Your task to perform on an android device: Go to internet settings Image 0: 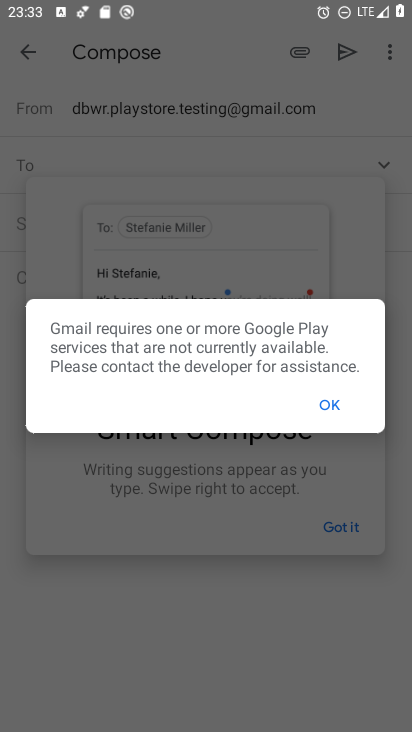
Step 0: press home button
Your task to perform on an android device: Go to internet settings Image 1: 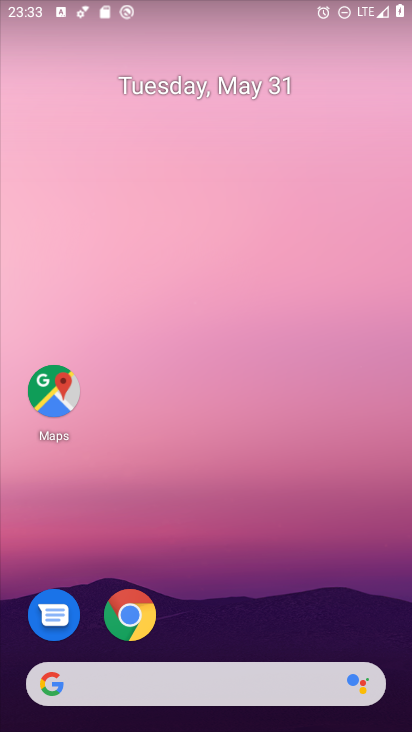
Step 1: drag from (381, 636) to (314, 80)
Your task to perform on an android device: Go to internet settings Image 2: 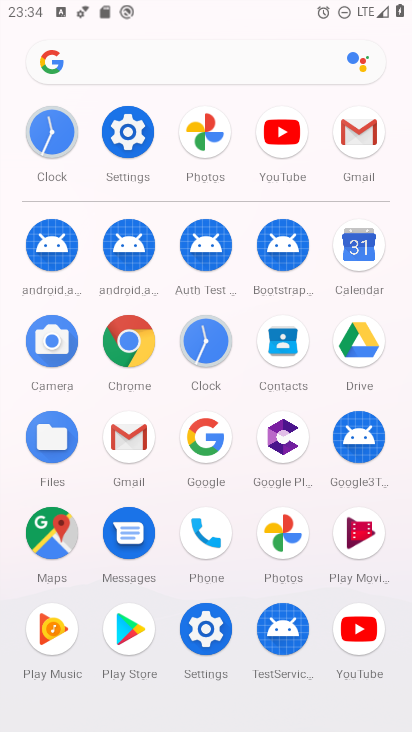
Step 2: click (207, 630)
Your task to perform on an android device: Go to internet settings Image 3: 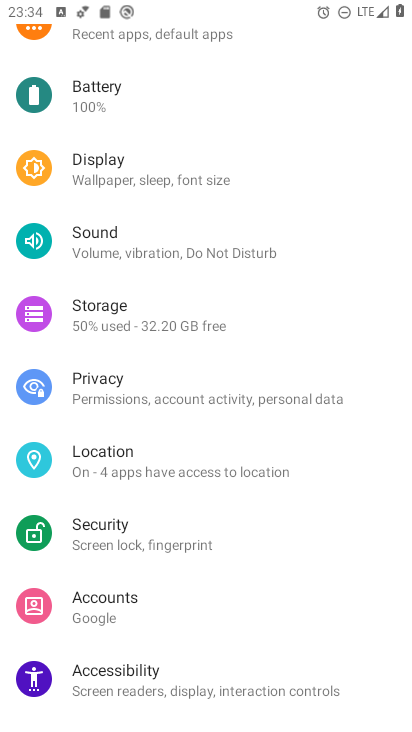
Step 3: drag from (328, 181) to (322, 522)
Your task to perform on an android device: Go to internet settings Image 4: 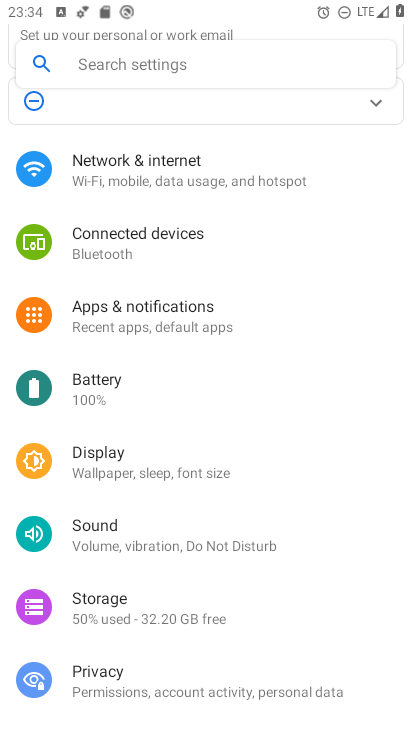
Step 4: click (124, 159)
Your task to perform on an android device: Go to internet settings Image 5: 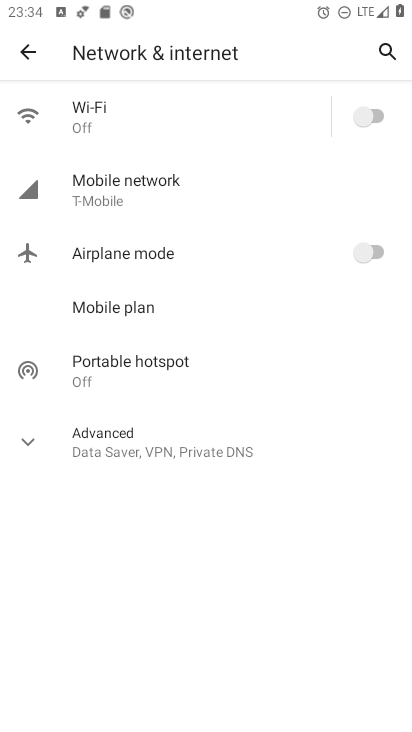
Step 5: click (116, 192)
Your task to perform on an android device: Go to internet settings Image 6: 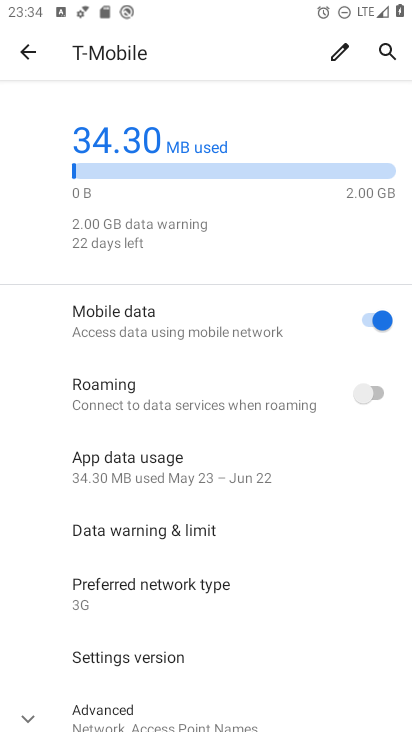
Step 6: task complete